Your task to perform on an android device: change notification settings in the gmail app Image 0: 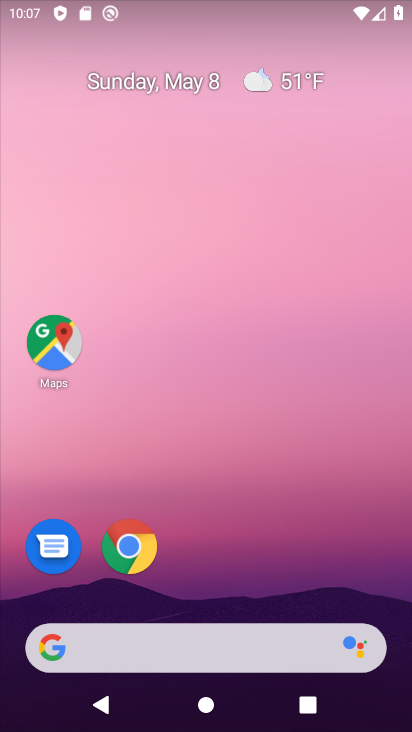
Step 0: drag from (213, 570) to (228, 28)
Your task to perform on an android device: change notification settings in the gmail app Image 1: 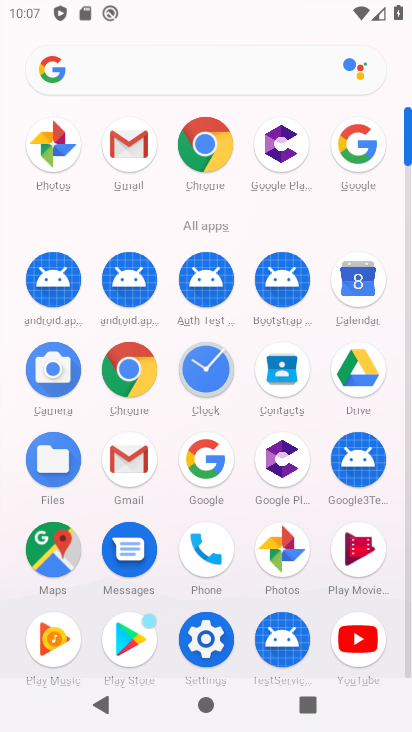
Step 1: click (129, 464)
Your task to perform on an android device: change notification settings in the gmail app Image 2: 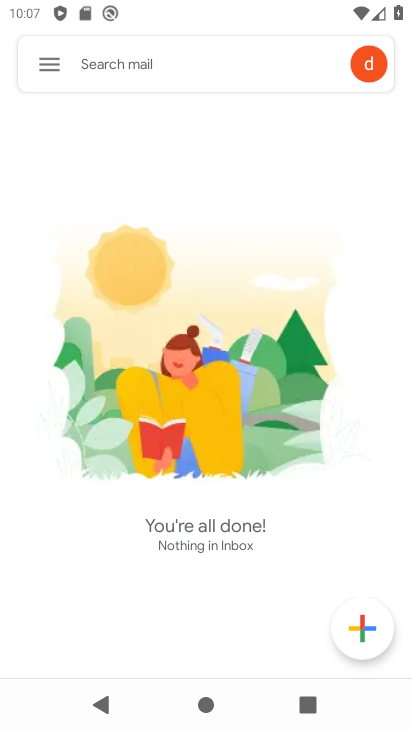
Step 2: click (45, 69)
Your task to perform on an android device: change notification settings in the gmail app Image 3: 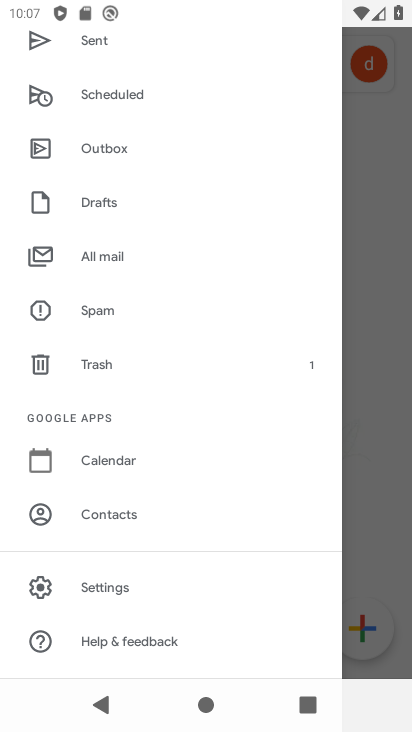
Step 3: click (114, 588)
Your task to perform on an android device: change notification settings in the gmail app Image 4: 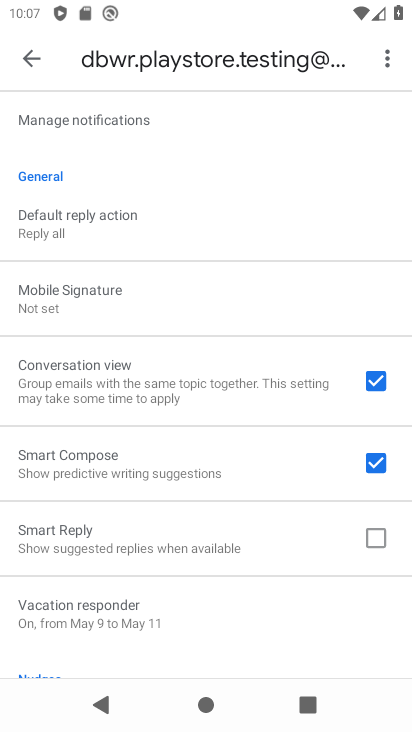
Step 4: drag from (190, 197) to (141, 337)
Your task to perform on an android device: change notification settings in the gmail app Image 5: 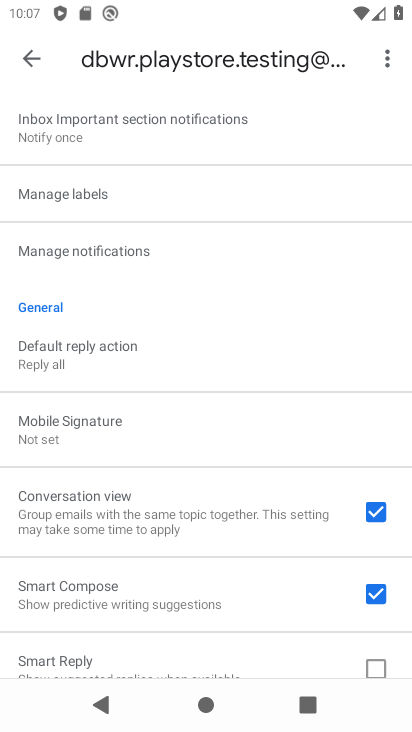
Step 5: click (101, 247)
Your task to perform on an android device: change notification settings in the gmail app Image 6: 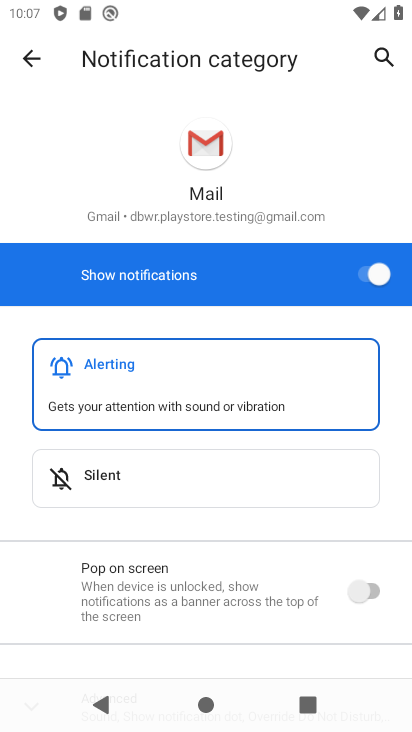
Step 6: click (386, 276)
Your task to perform on an android device: change notification settings in the gmail app Image 7: 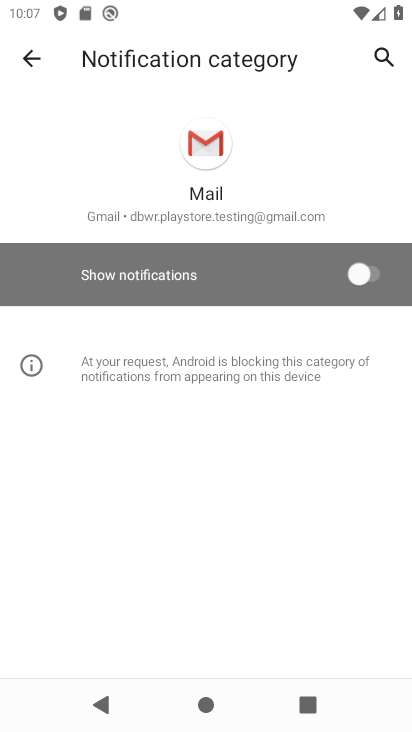
Step 7: task complete